Your task to perform on an android device: What's on my calendar today? Image 0: 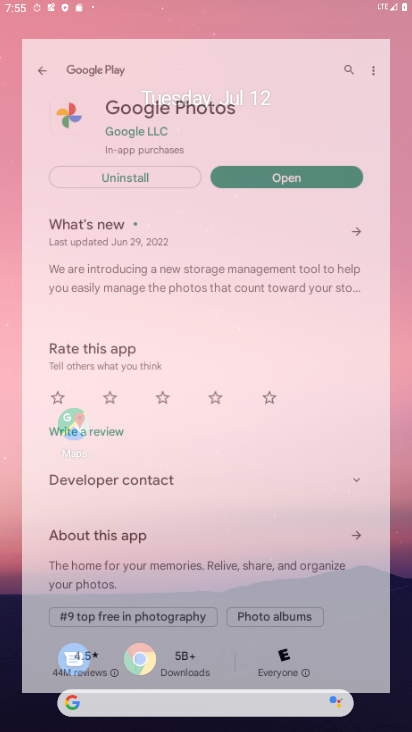
Step 0: drag from (386, 686) to (282, 105)
Your task to perform on an android device: What's on my calendar today? Image 1: 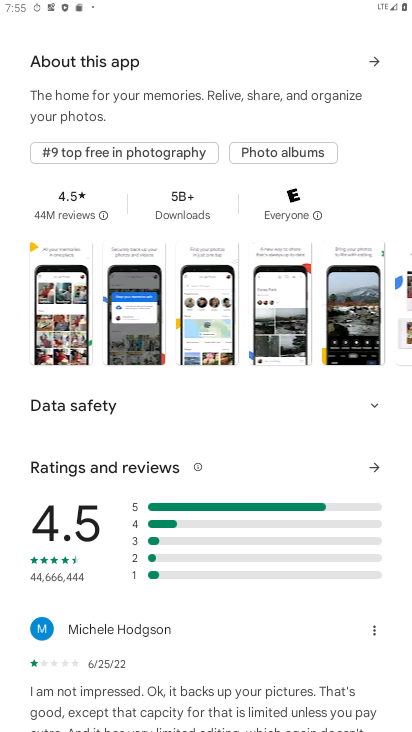
Step 1: press home button
Your task to perform on an android device: What's on my calendar today? Image 2: 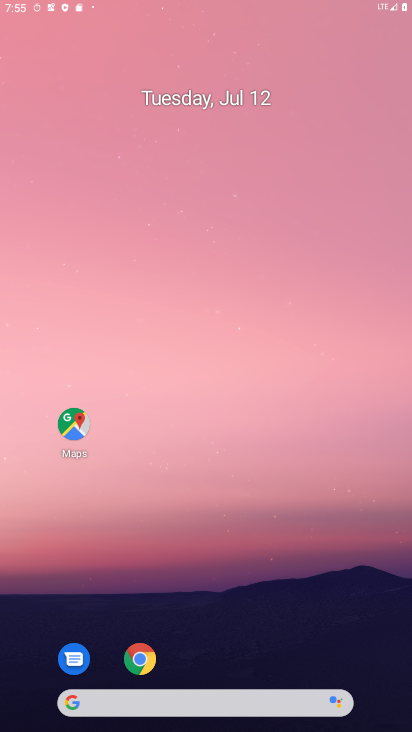
Step 2: drag from (386, 699) to (261, 85)
Your task to perform on an android device: What's on my calendar today? Image 3: 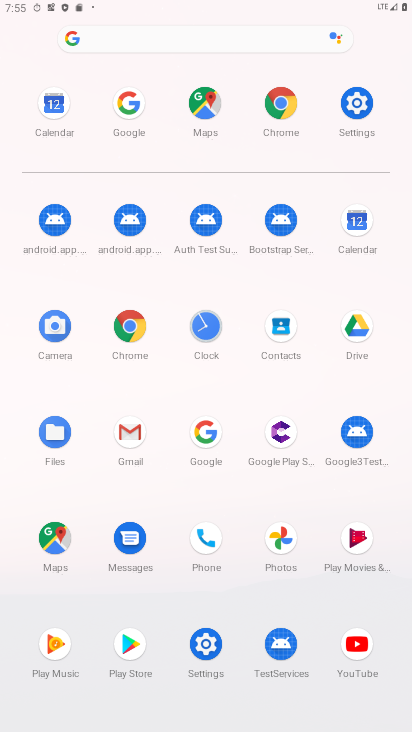
Step 3: click (362, 219)
Your task to perform on an android device: What's on my calendar today? Image 4: 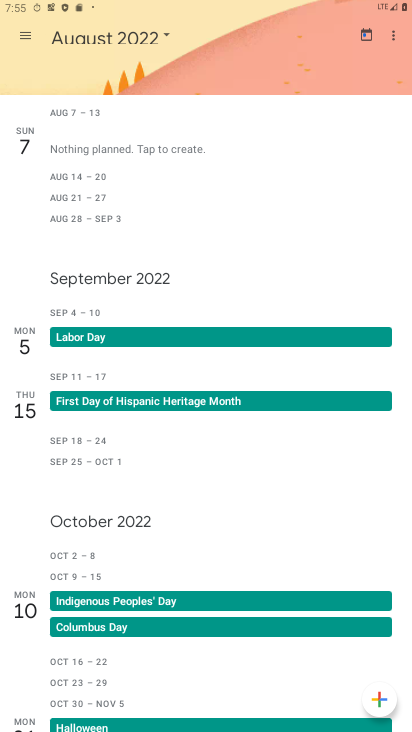
Step 4: click (129, 39)
Your task to perform on an android device: What's on my calendar today? Image 5: 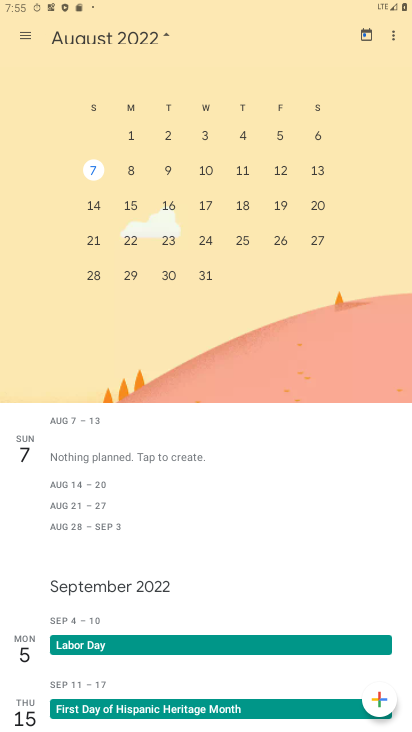
Step 5: click (322, 168)
Your task to perform on an android device: What's on my calendar today? Image 6: 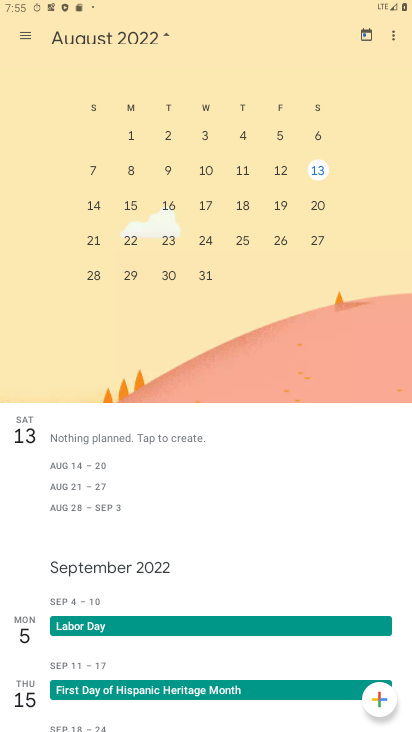
Step 6: click (138, 464)
Your task to perform on an android device: What's on my calendar today? Image 7: 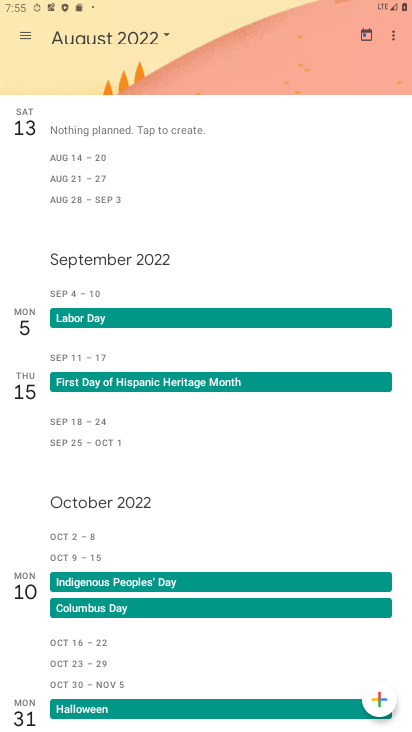
Step 7: task complete